Your task to perform on an android device: Open network settings Image 0: 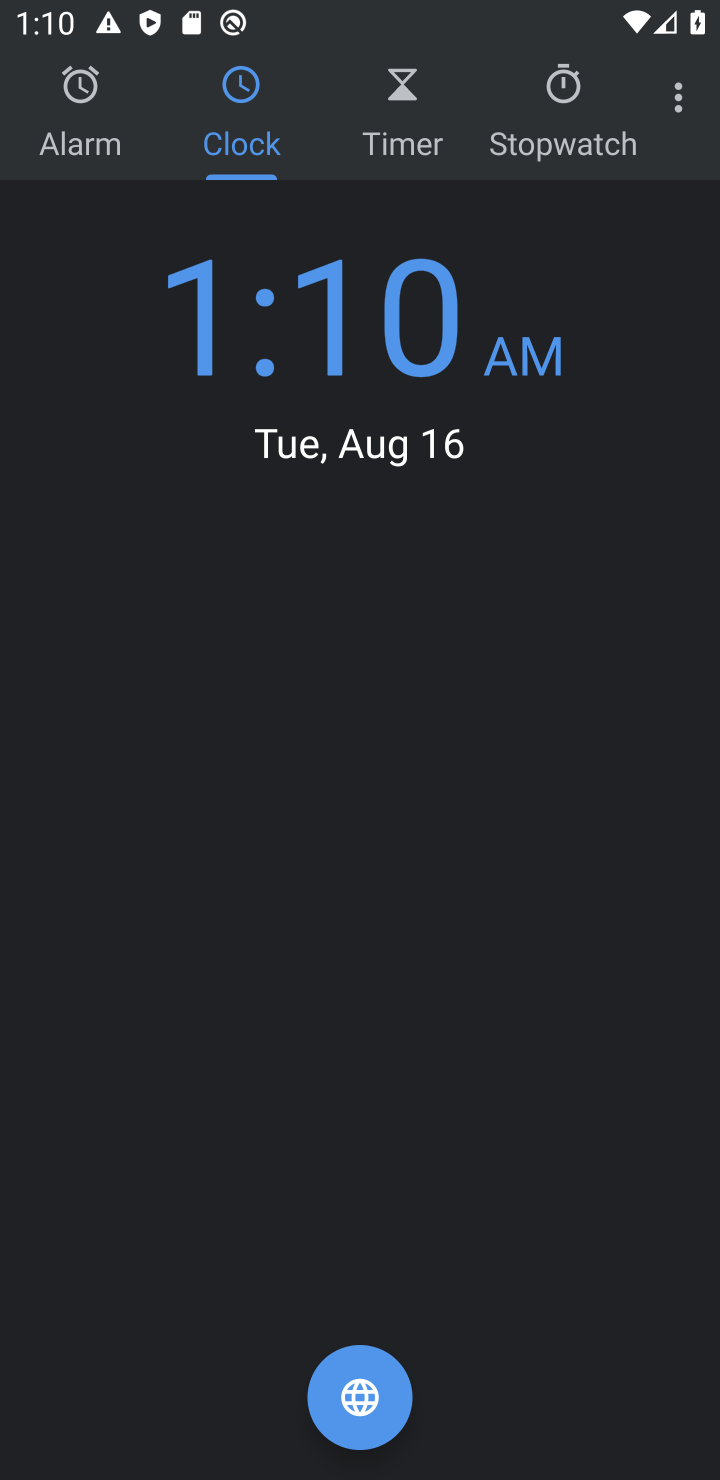
Step 0: drag from (536, 1121) to (648, 580)
Your task to perform on an android device: Open network settings Image 1: 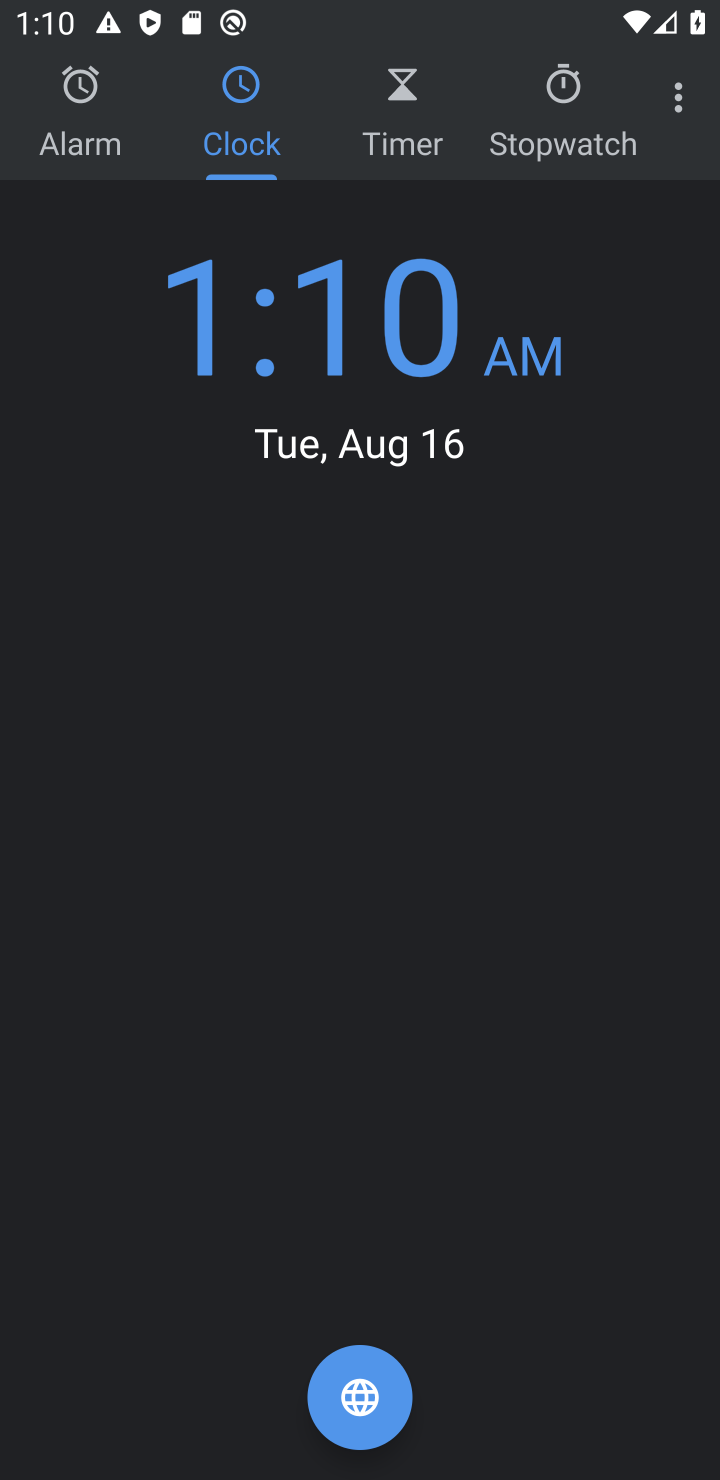
Step 1: task complete